Your task to perform on an android device: change text size in settings app Image 0: 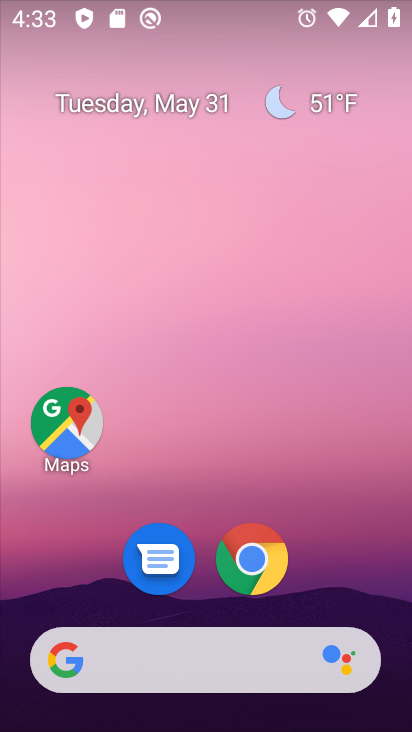
Step 0: drag from (327, 582) to (315, 1)
Your task to perform on an android device: change text size in settings app Image 1: 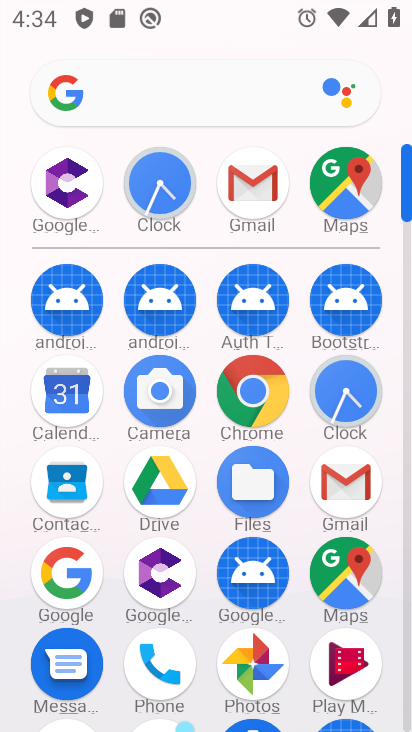
Step 1: drag from (294, 598) to (254, 187)
Your task to perform on an android device: change text size in settings app Image 2: 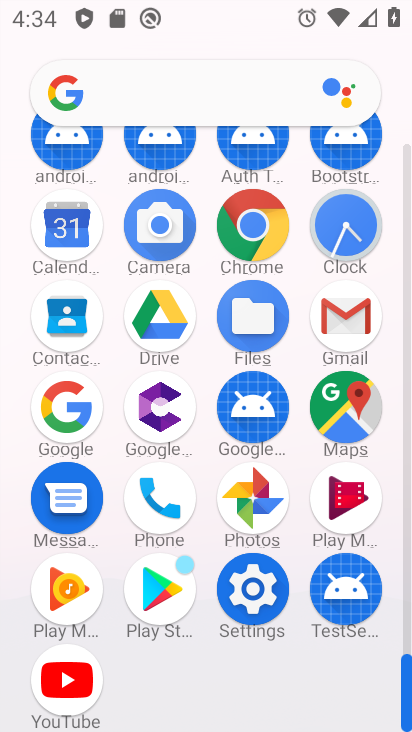
Step 2: click (254, 594)
Your task to perform on an android device: change text size in settings app Image 3: 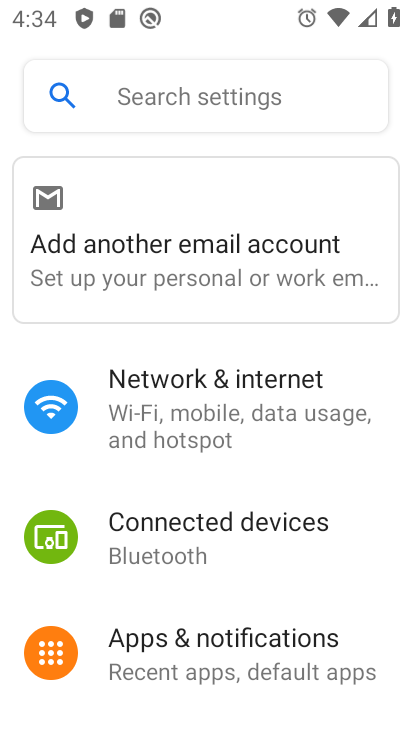
Step 3: drag from (202, 677) to (233, 250)
Your task to perform on an android device: change text size in settings app Image 4: 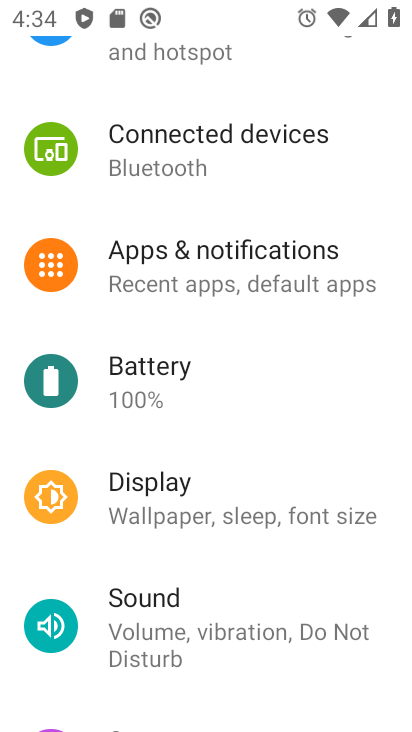
Step 4: drag from (206, 658) to (190, 294)
Your task to perform on an android device: change text size in settings app Image 5: 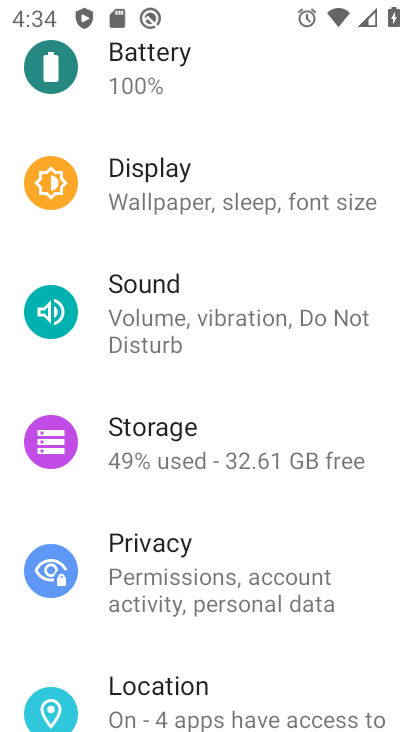
Step 5: click (249, 185)
Your task to perform on an android device: change text size in settings app Image 6: 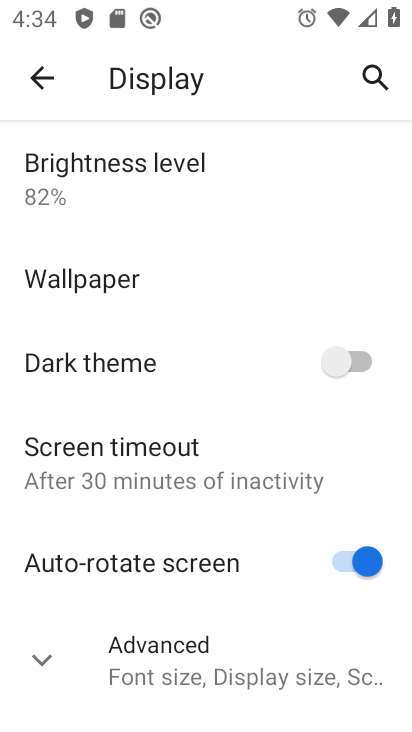
Step 6: click (201, 667)
Your task to perform on an android device: change text size in settings app Image 7: 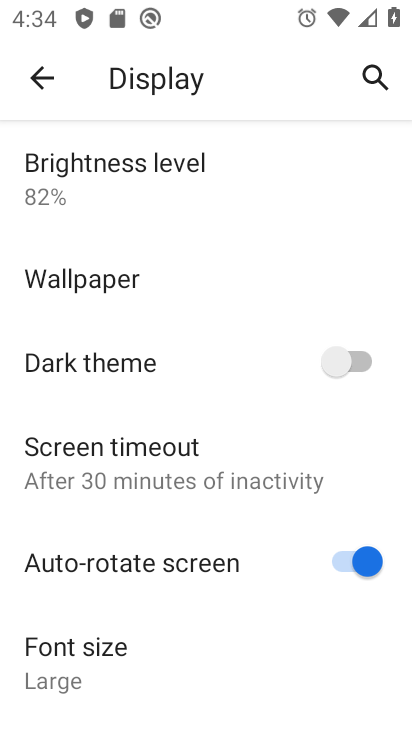
Step 7: drag from (179, 641) to (173, 287)
Your task to perform on an android device: change text size in settings app Image 8: 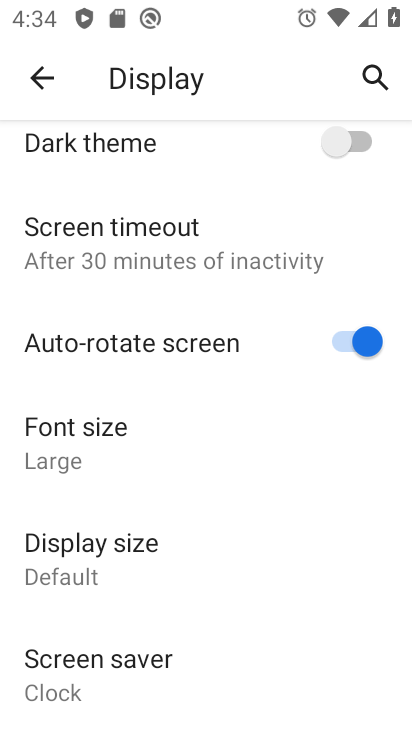
Step 8: click (94, 459)
Your task to perform on an android device: change text size in settings app Image 9: 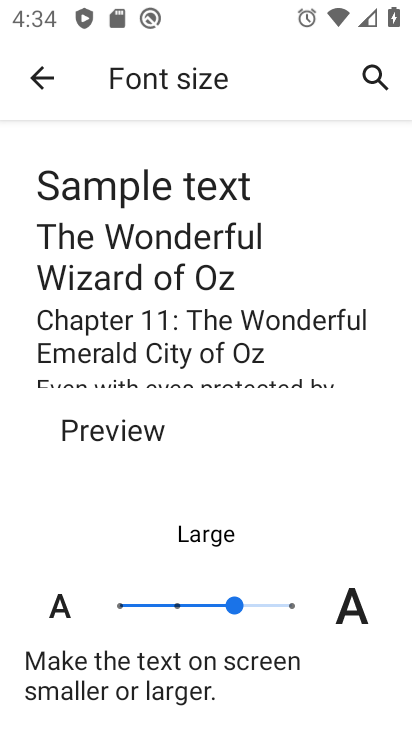
Step 9: click (177, 603)
Your task to perform on an android device: change text size in settings app Image 10: 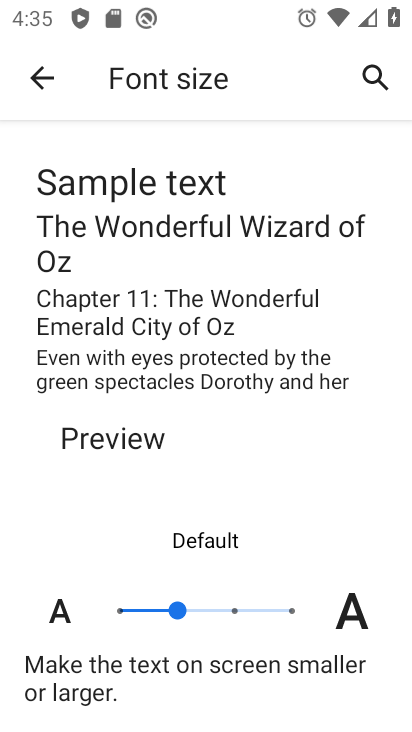
Step 10: task complete